Your task to perform on an android device: check the backup settings in the google photos Image 0: 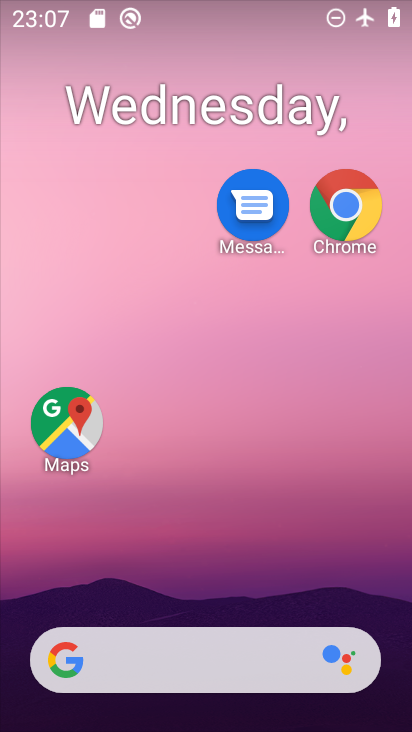
Step 0: drag from (229, 487) to (291, 235)
Your task to perform on an android device: check the backup settings in the google photos Image 1: 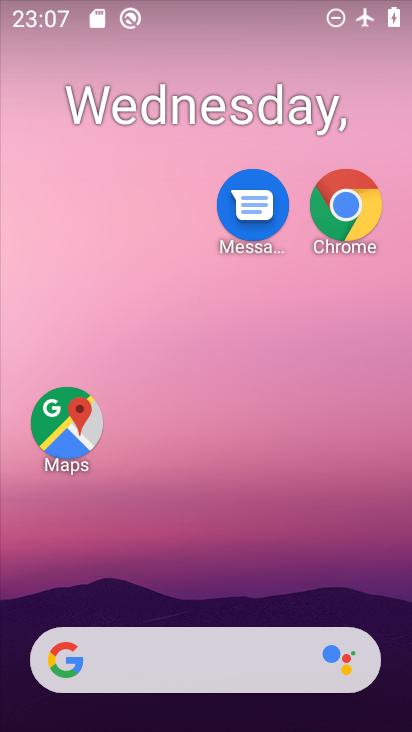
Step 1: drag from (255, 454) to (290, 94)
Your task to perform on an android device: check the backup settings in the google photos Image 2: 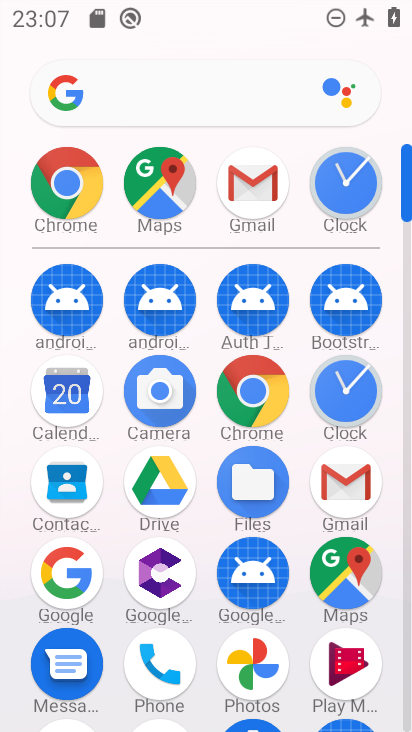
Step 2: click (235, 651)
Your task to perform on an android device: check the backup settings in the google photos Image 3: 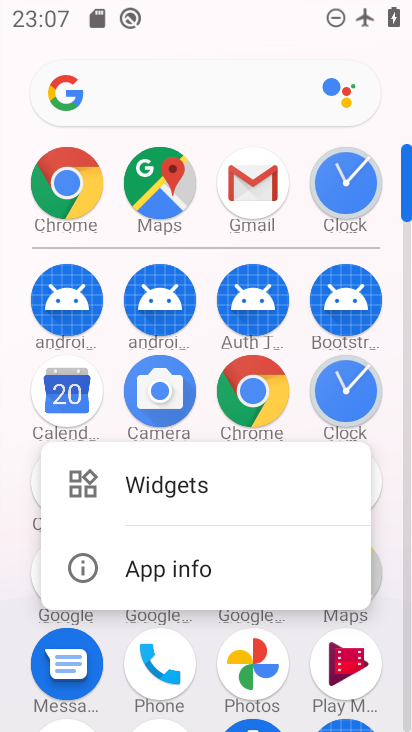
Step 3: click (185, 575)
Your task to perform on an android device: check the backup settings in the google photos Image 4: 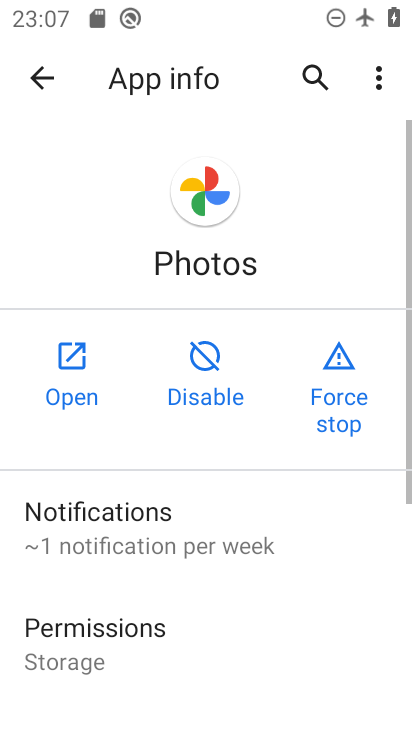
Step 4: click (77, 332)
Your task to perform on an android device: check the backup settings in the google photos Image 5: 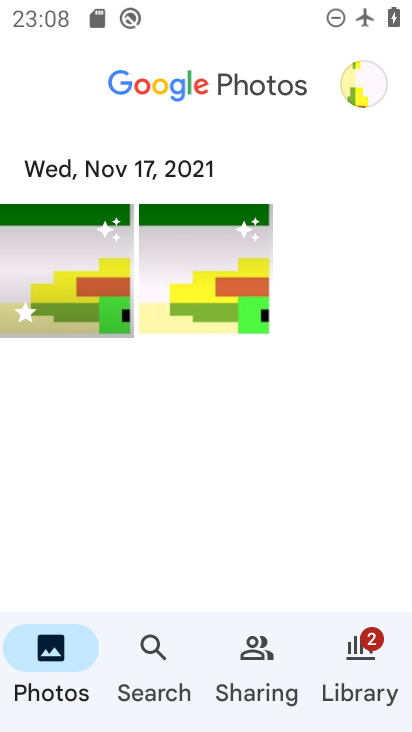
Step 5: drag from (233, 514) to (229, 257)
Your task to perform on an android device: check the backup settings in the google photos Image 6: 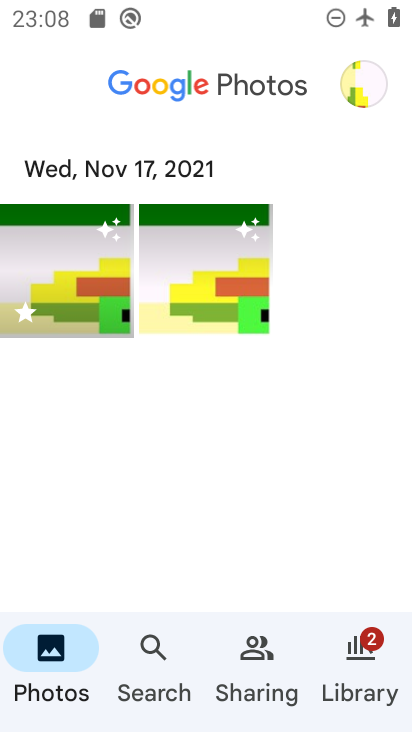
Step 6: drag from (195, 579) to (194, 278)
Your task to perform on an android device: check the backup settings in the google photos Image 7: 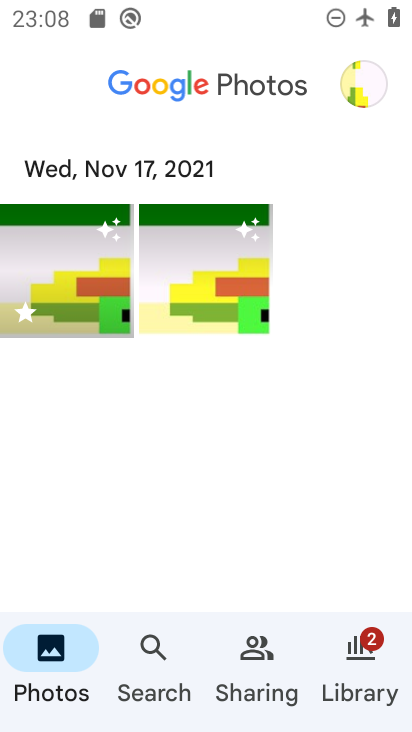
Step 7: click (377, 97)
Your task to perform on an android device: check the backup settings in the google photos Image 8: 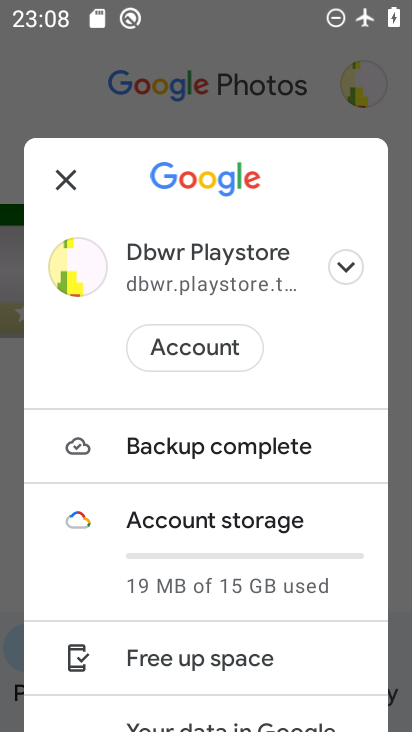
Step 8: drag from (220, 620) to (277, 259)
Your task to perform on an android device: check the backup settings in the google photos Image 9: 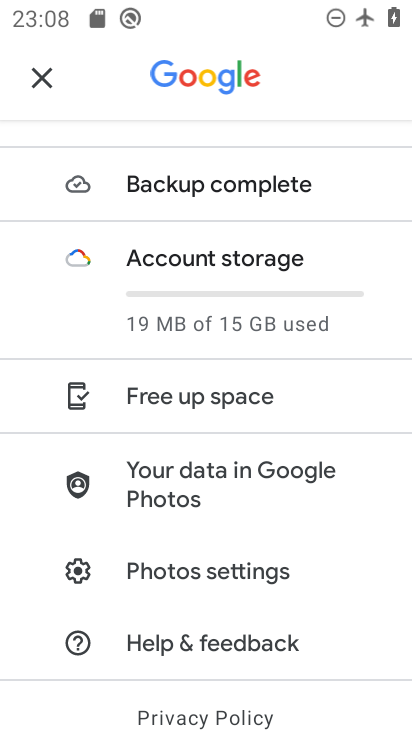
Step 9: click (215, 580)
Your task to perform on an android device: check the backup settings in the google photos Image 10: 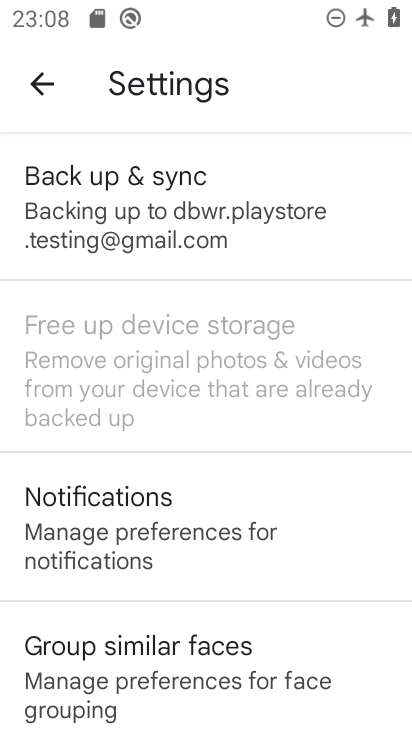
Step 10: drag from (241, 557) to (368, 43)
Your task to perform on an android device: check the backup settings in the google photos Image 11: 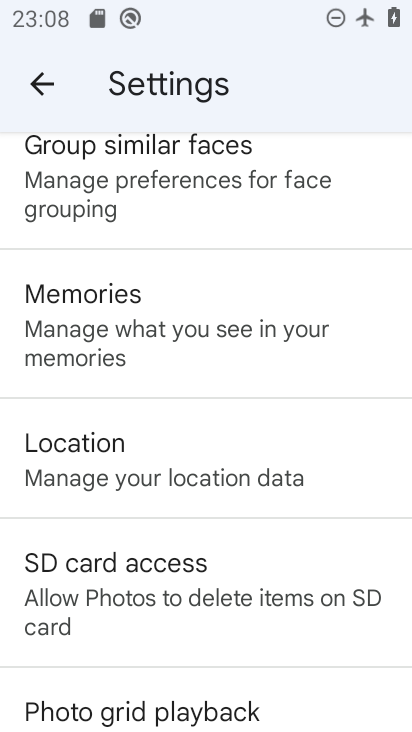
Step 11: drag from (167, 216) to (284, 648)
Your task to perform on an android device: check the backup settings in the google photos Image 12: 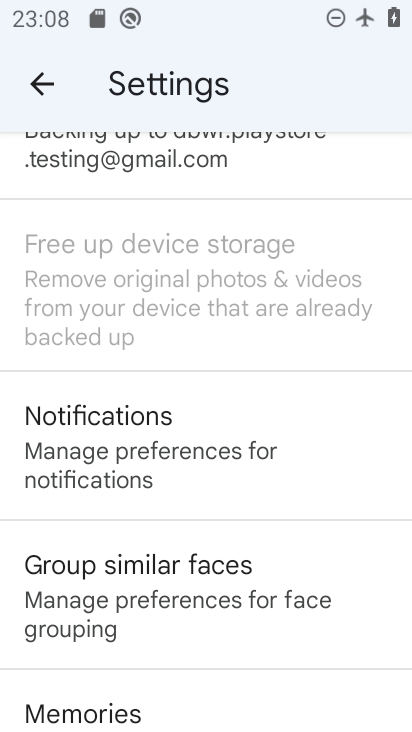
Step 12: click (133, 160)
Your task to perform on an android device: check the backup settings in the google photos Image 13: 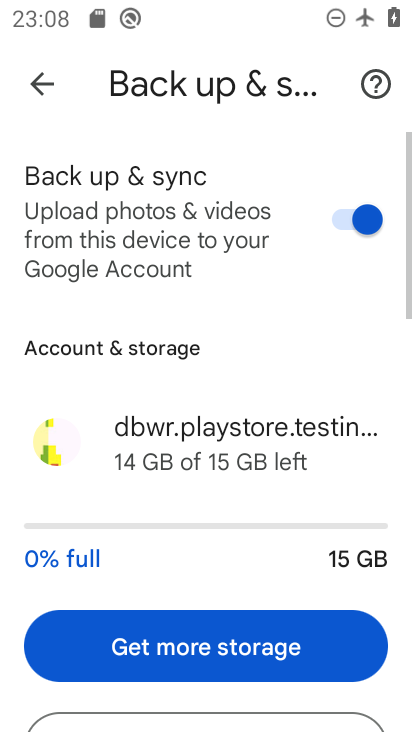
Step 13: task complete